Your task to perform on an android device: Show me productivity apps on the Play Store Image 0: 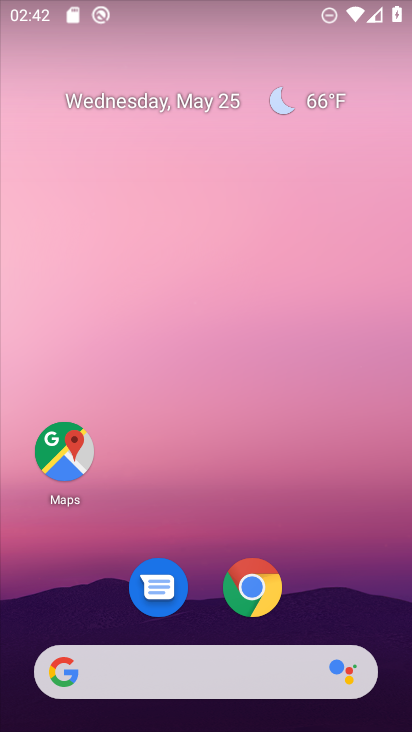
Step 0: drag from (366, 619) to (382, 144)
Your task to perform on an android device: Show me productivity apps on the Play Store Image 1: 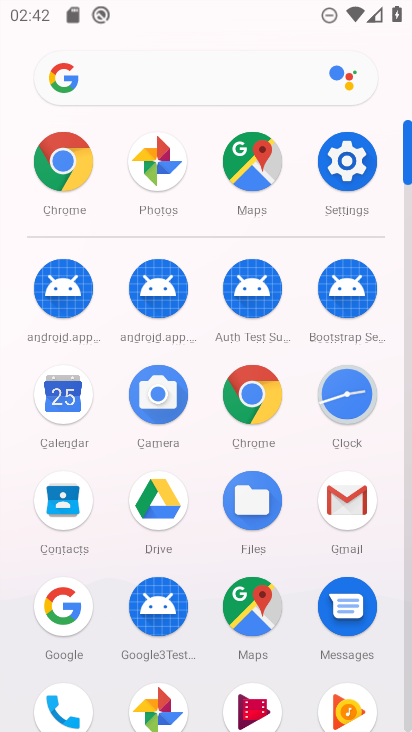
Step 1: drag from (291, 679) to (291, 393)
Your task to perform on an android device: Show me productivity apps on the Play Store Image 2: 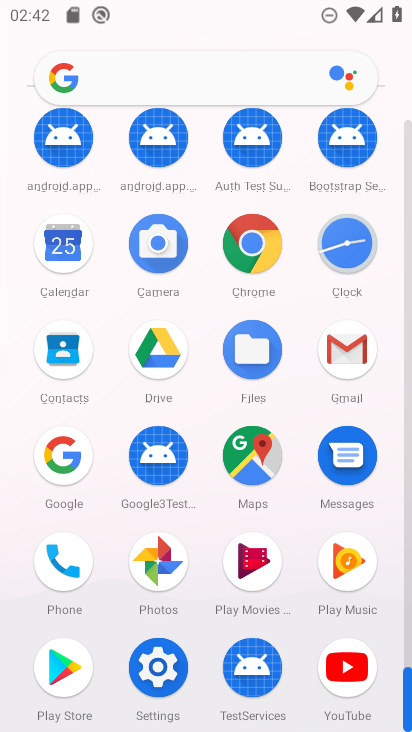
Step 2: click (50, 677)
Your task to perform on an android device: Show me productivity apps on the Play Store Image 3: 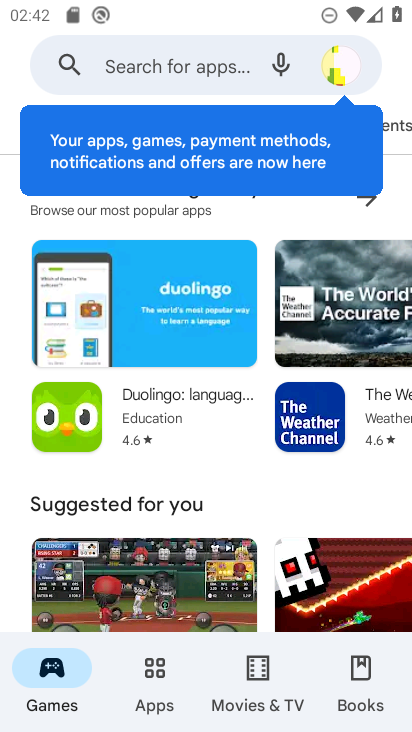
Step 3: click (151, 698)
Your task to perform on an android device: Show me productivity apps on the Play Store Image 4: 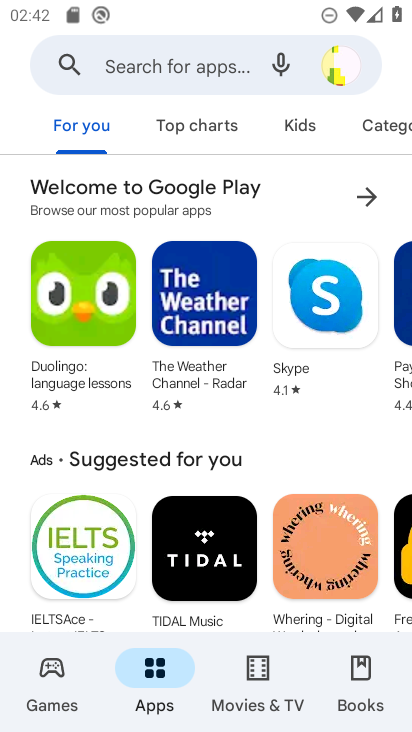
Step 4: drag from (265, 578) to (259, 362)
Your task to perform on an android device: Show me productivity apps on the Play Store Image 5: 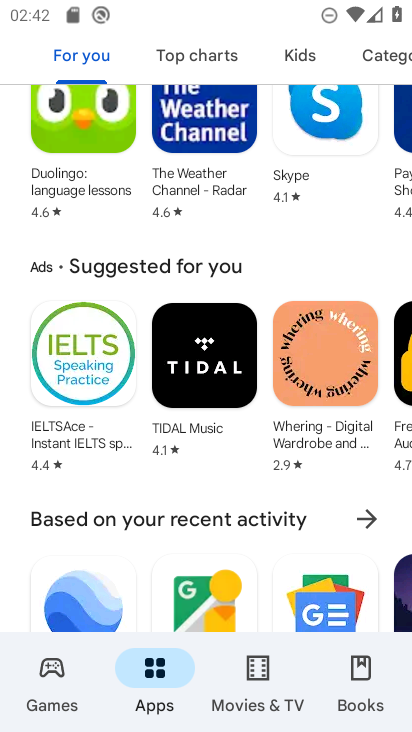
Step 5: drag from (266, 597) to (268, 437)
Your task to perform on an android device: Show me productivity apps on the Play Store Image 6: 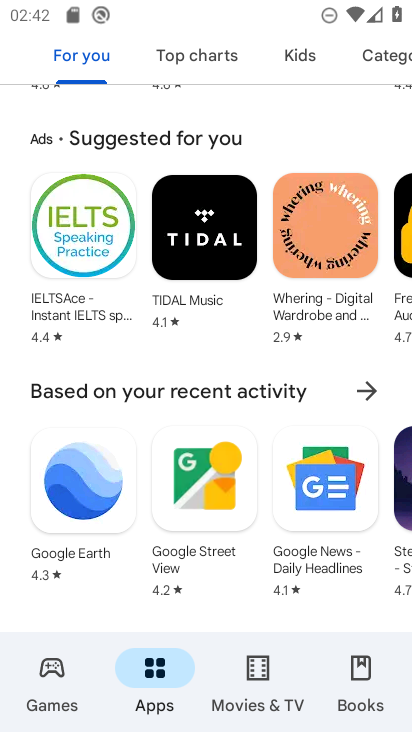
Step 6: drag from (257, 595) to (253, 384)
Your task to perform on an android device: Show me productivity apps on the Play Store Image 7: 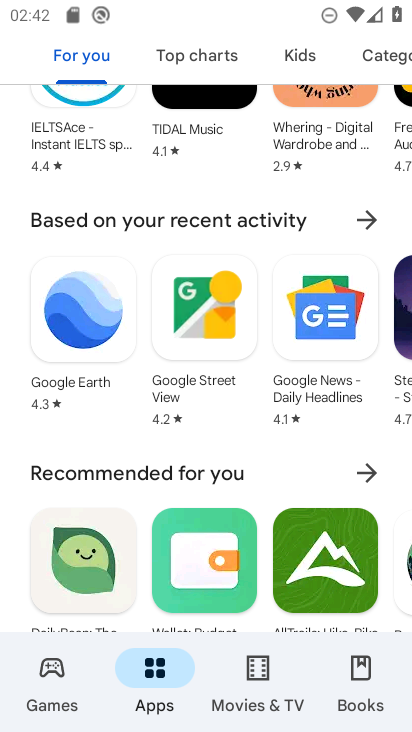
Step 7: drag from (255, 588) to (263, 370)
Your task to perform on an android device: Show me productivity apps on the Play Store Image 8: 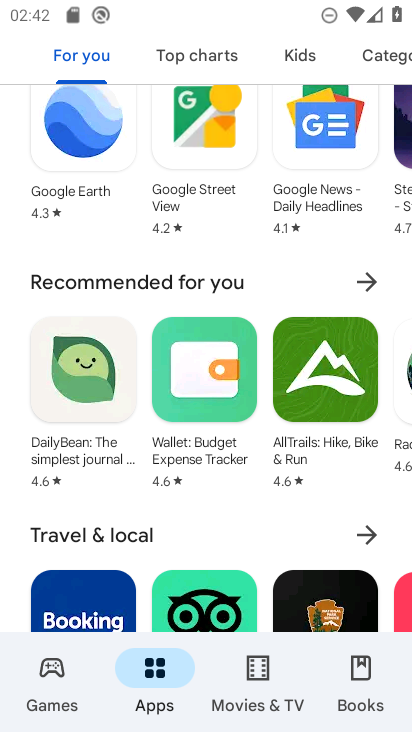
Step 8: drag from (268, 556) to (275, 486)
Your task to perform on an android device: Show me productivity apps on the Play Store Image 9: 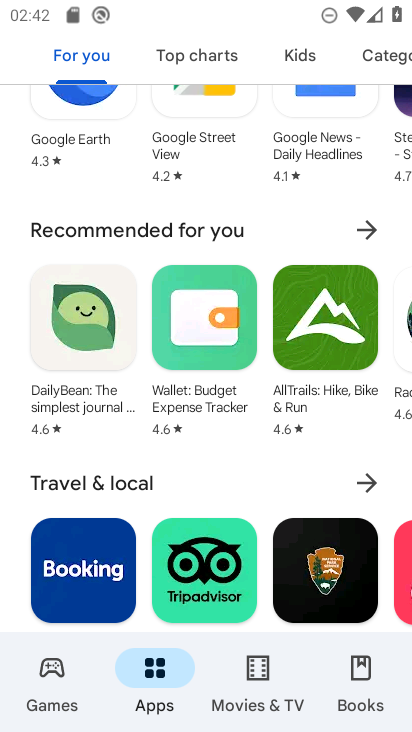
Step 9: drag from (266, 616) to (269, 351)
Your task to perform on an android device: Show me productivity apps on the Play Store Image 10: 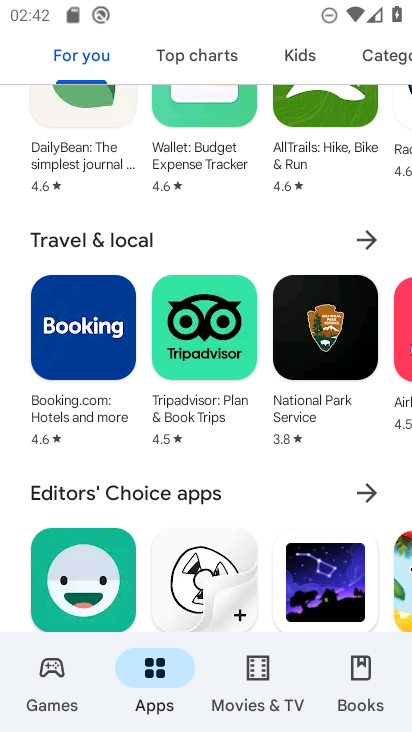
Step 10: drag from (250, 556) to (267, 385)
Your task to perform on an android device: Show me productivity apps on the Play Store Image 11: 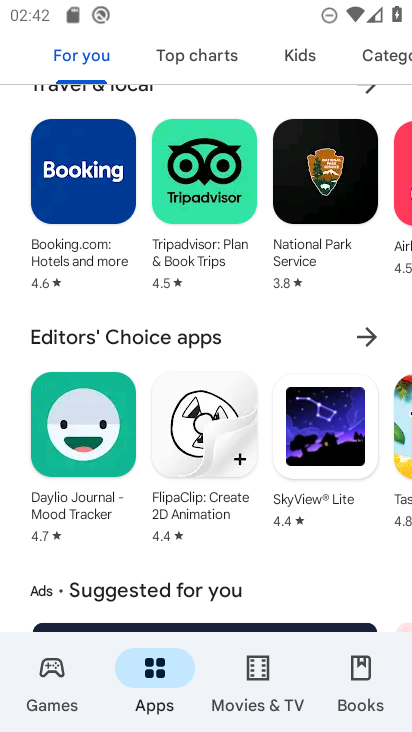
Step 11: drag from (271, 549) to (275, 428)
Your task to perform on an android device: Show me productivity apps on the Play Store Image 12: 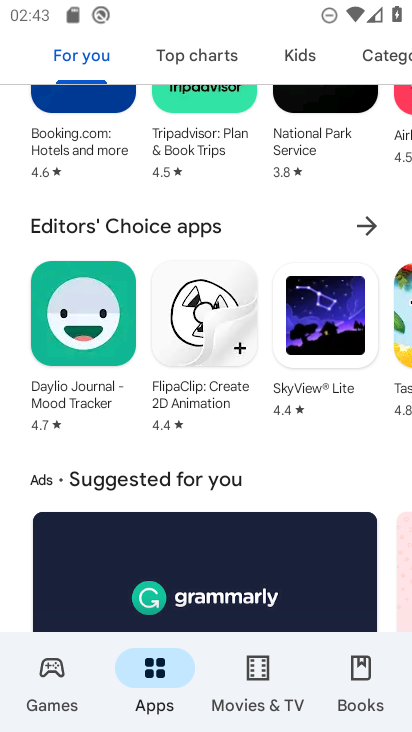
Step 12: click (283, 442)
Your task to perform on an android device: Show me productivity apps on the Play Store Image 13: 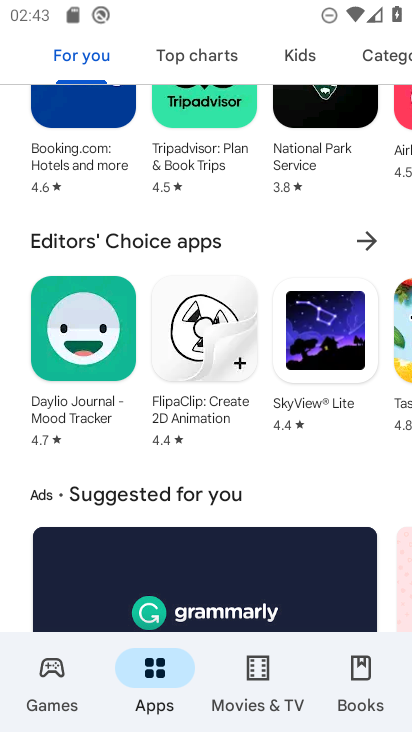
Step 13: task complete